Your task to perform on an android device: Play the last video I watched on Youtube Image 0: 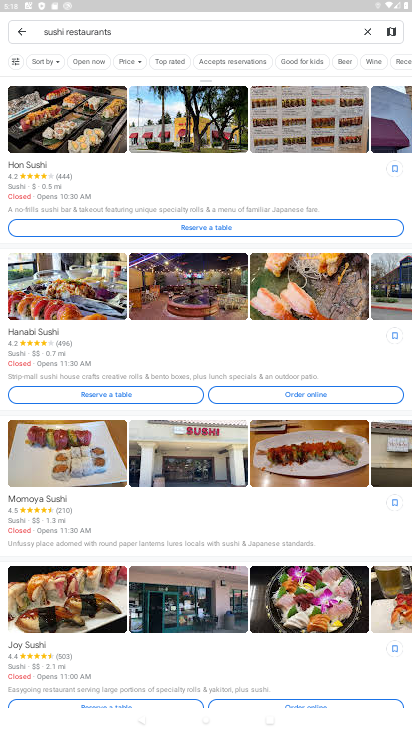
Step 0: press home button
Your task to perform on an android device: Play the last video I watched on Youtube Image 1: 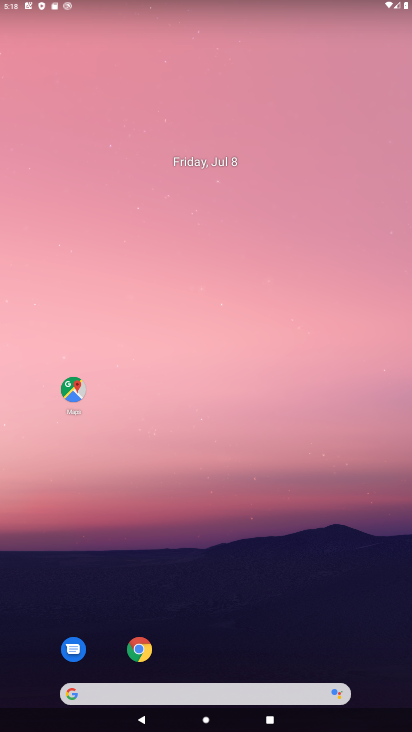
Step 1: drag from (300, 584) to (208, 13)
Your task to perform on an android device: Play the last video I watched on Youtube Image 2: 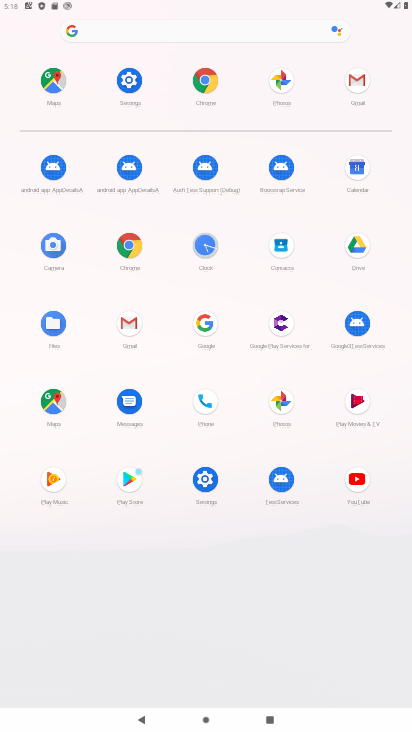
Step 2: click (357, 480)
Your task to perform on an android device: Play the last video I watched on Youtube Image 3: 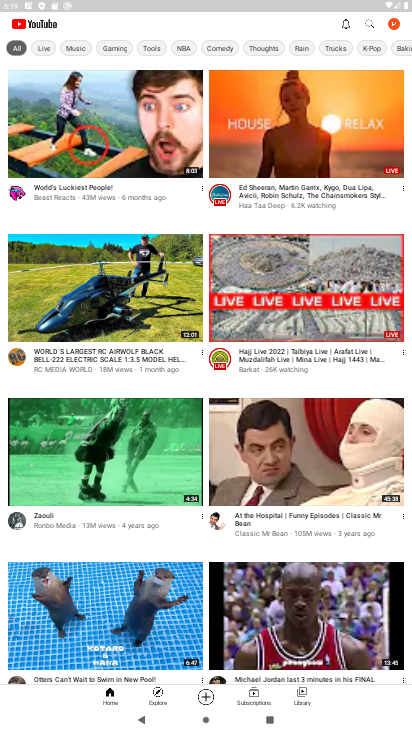
Step 3: click (302, 686)
Your task to perform on an android device: Play the last video I watched on Youtube Image 4: 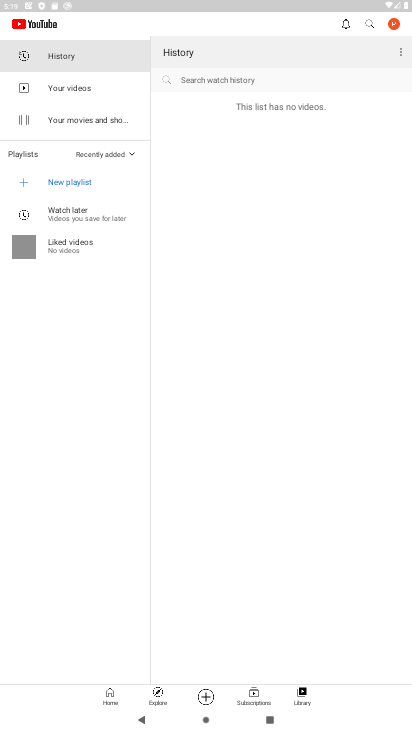
Step 4: task complete